Your task to perform on an android device: Set the phone to "Do not disturb". Image 0: 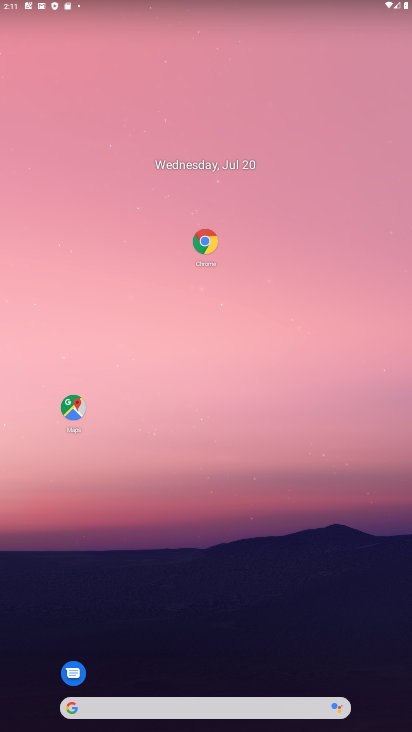
Step 0: drag from (204, 665) to (251, 84)
Your task to perform on an android device: Set the phone to "Do not disturb". Image 1: 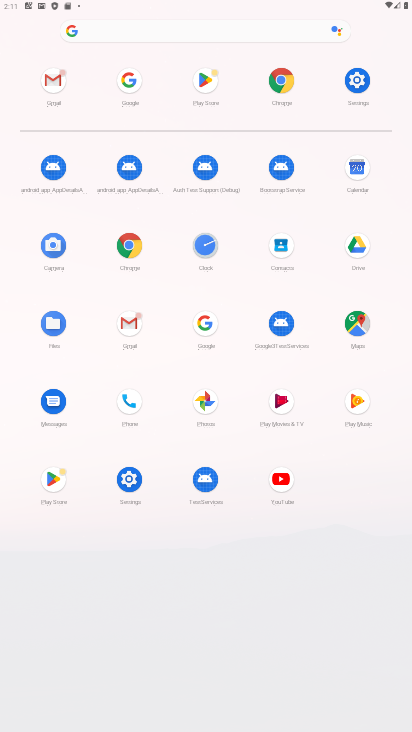
Step 1: click (128, 481)
Your task to perform on an android device: Set the phone to "Do not disturb". Image 2: 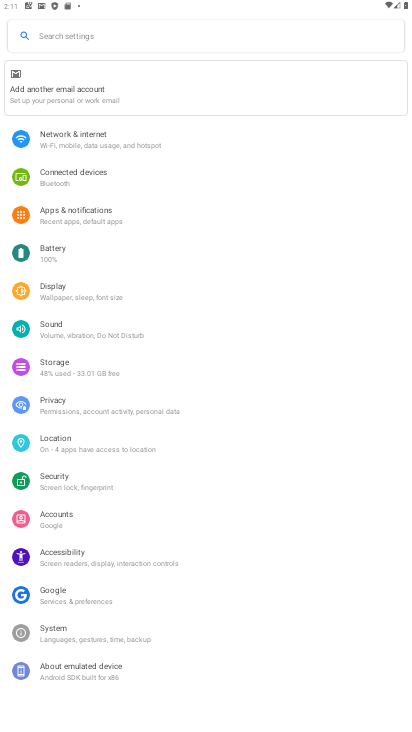
Step 2: click (88, 324)
Your task to perform on an android device: Set the phone to "Do not disturb". Image 3: 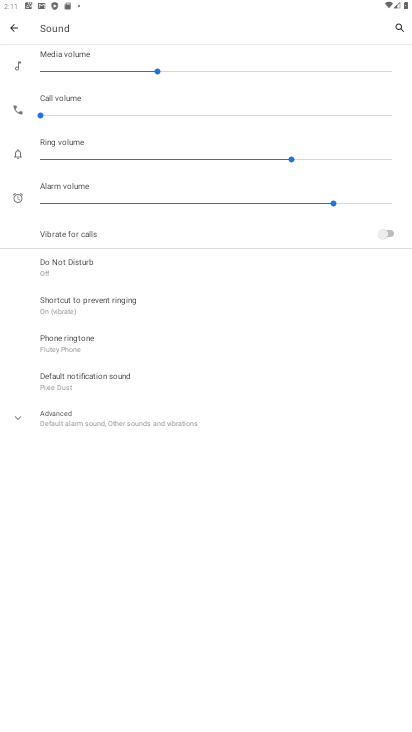
Step 3: click (71, 273)
Your task to perform on an android device: Set the phone to "Do not disturb". Image 4: 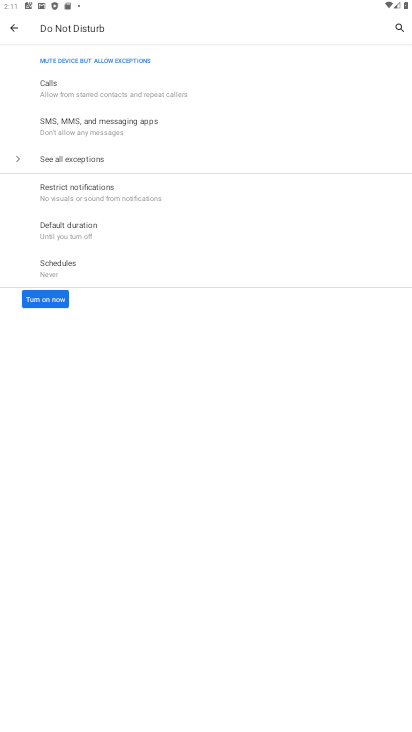
Step 4: click (52, 298)
Your task to perform on an android device: Set the phone to "Do not disturb". Image 5: 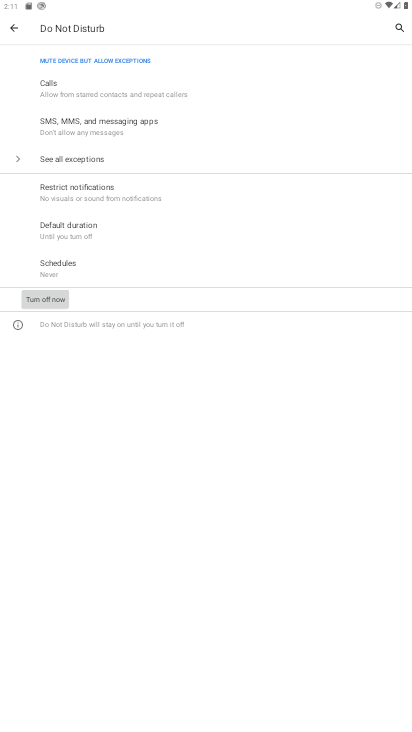
Step 5: task complete